Your task to perform on an android device: Open notification settings Image 0: 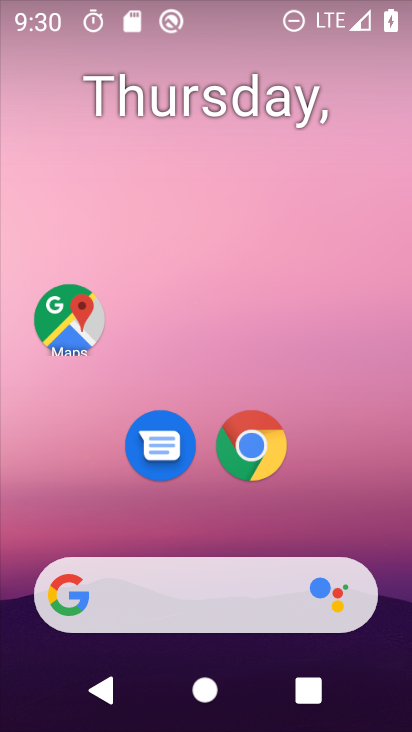
Step 0: drag from (200, 549) to (208, 204)
Your task to perform on an android device: Open notification settings Image 1: 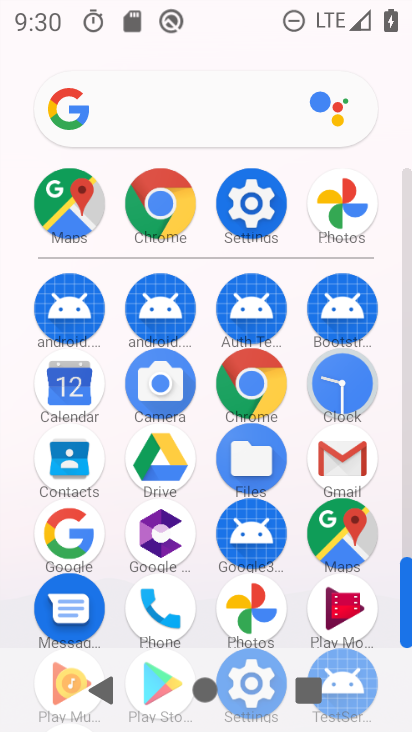
Step 1: click (241, 221)
Your task to perform on an android device: Open notification settings Image 2: 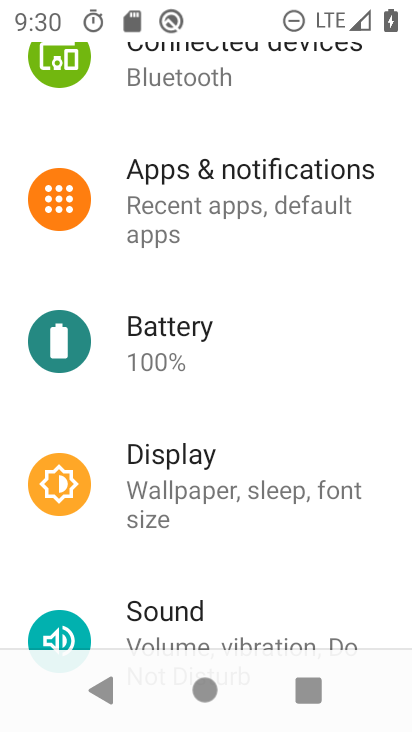
Step 2: click (246, 220)
Your task to perform on an android device: Open notification settings Image 3: 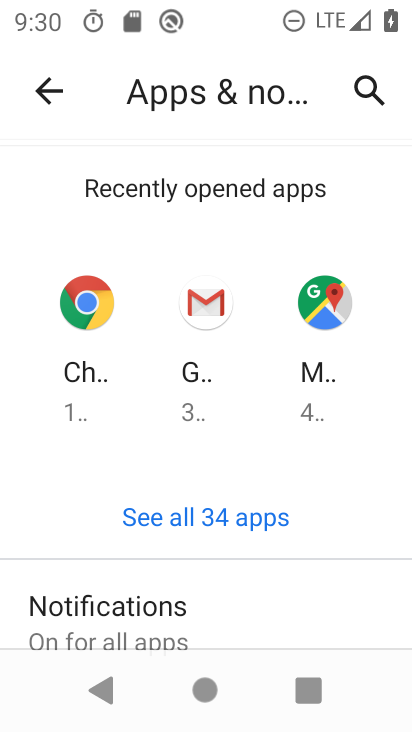
Step 3: drag from (194, 601) to (220, 298)
Your task to perform on an android device: Open notification settings Image 4: 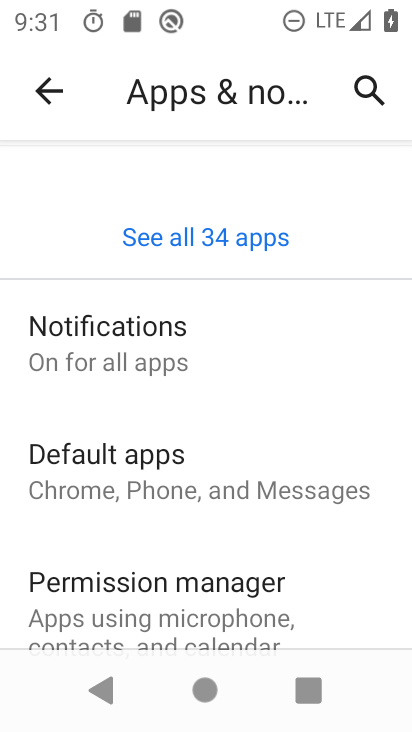
Step 4: click (111, 377)
Your task to perform on an android device: Open notification settings Image 5: 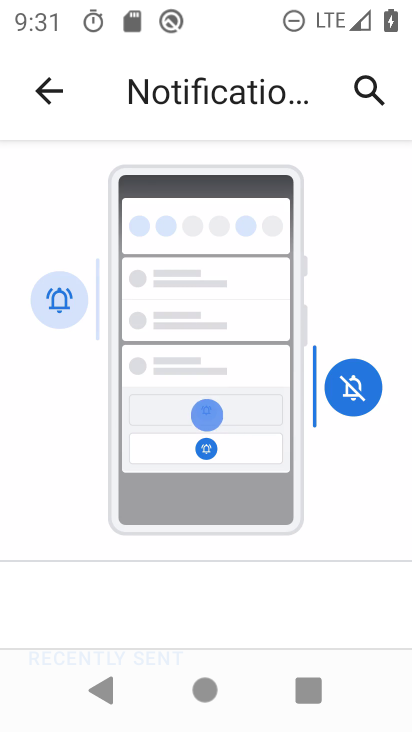
Step 5: task complete